Your task to perform on an android device: turn off priority inbox in the gmail app Image 0: 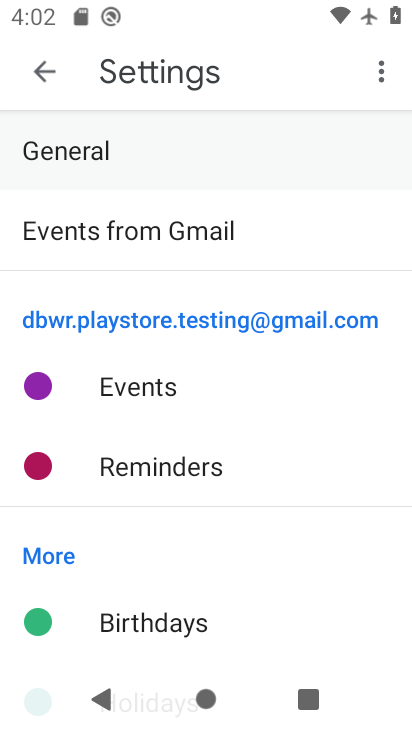
Step 0: drag from (162, 600) to (236, 141)
Your task to perform on an android device: turn off priority inbox in the gmail app Image 1: 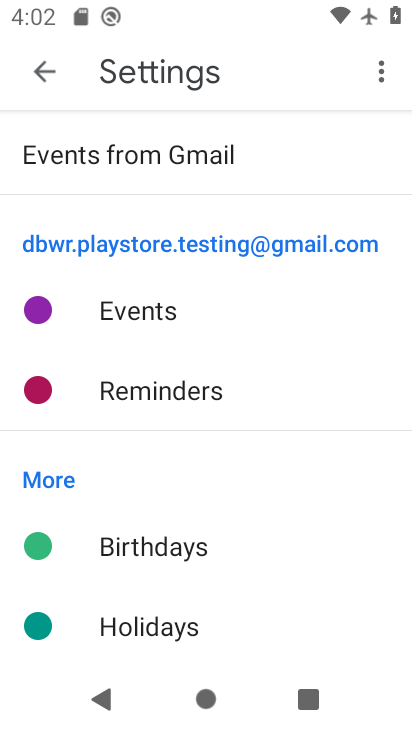
Step 1: drag from (159, 605) to (222, 203)
Your task to perform on an android device: turn off priority inbox in the gmail app Image 2: 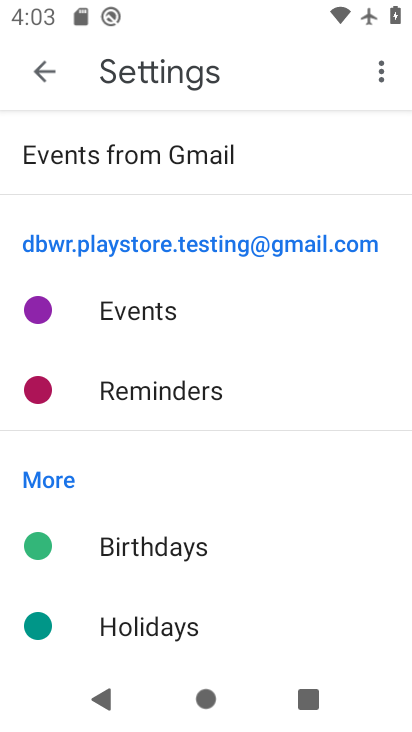
Step 2: press home button
Your task to perform on an android device: turn off priority inbox in the gmail app Image 3: 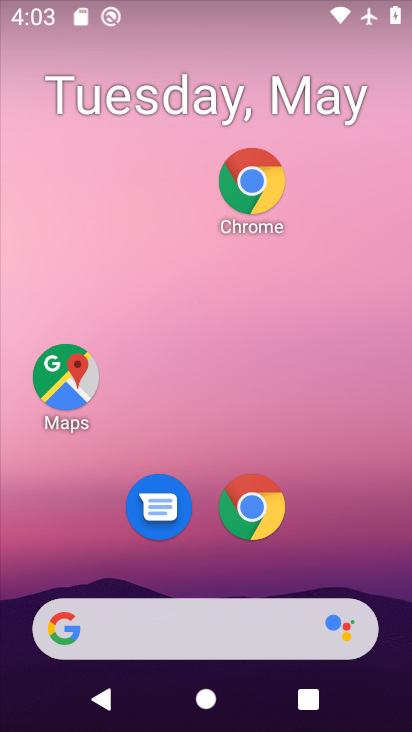
Step 3: drag from (375, 521) to (323, 121)
Your task to perform on an android device: turn off priority inbox in the gmail app Image 4: 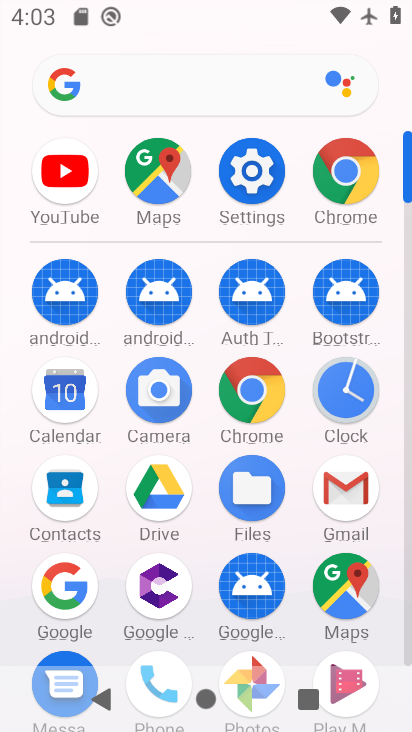
Step 4: click (356, 493)
Your task to perform on an android device: turn off priority inbox in the gmail app Image 5: 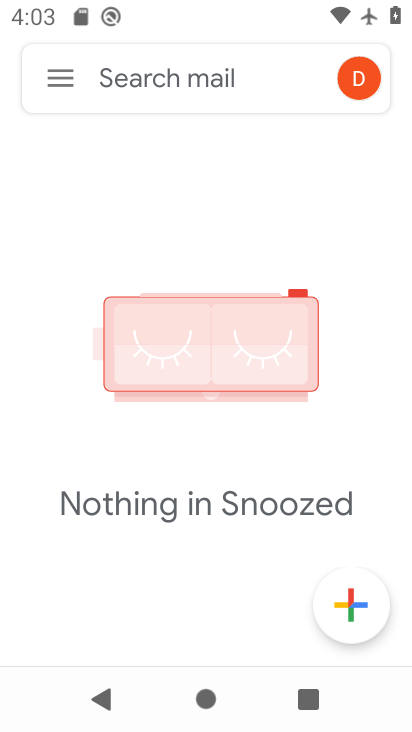
Step 5: click (61, 87)
Your task to perform on an android device: turn off priority inbox in the gmail app Image 6: 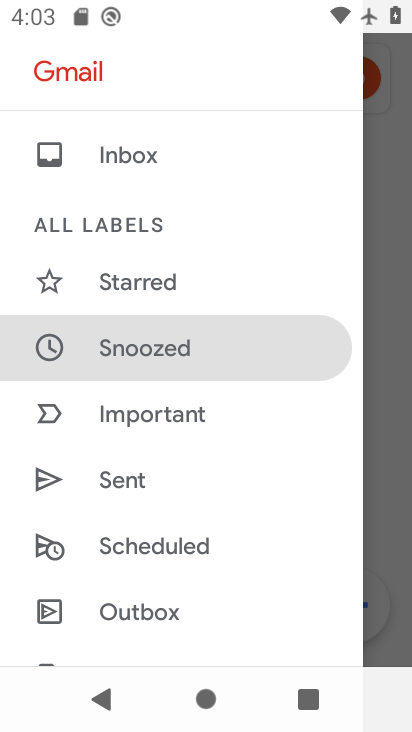
Step 6: drag from (148, 575) to (104, 288)
Your task to perform on an android device: turn off priority inbox in the gmail app Image 7: 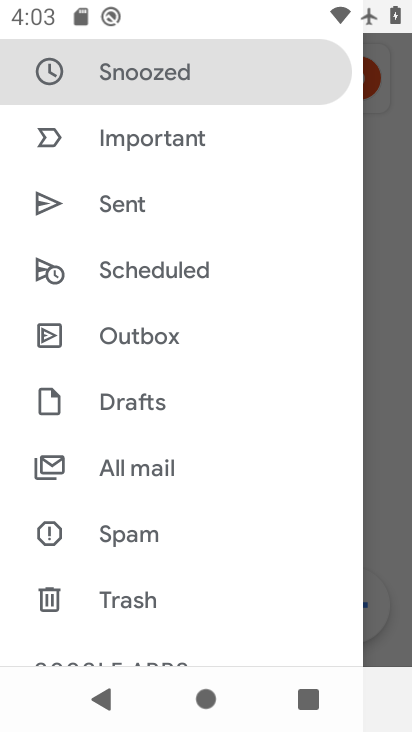
Step 7: drag from (143, 580) to (118, 250)
Your task to perform on an android device: turn off priority inbox in the gmail app Image 8: 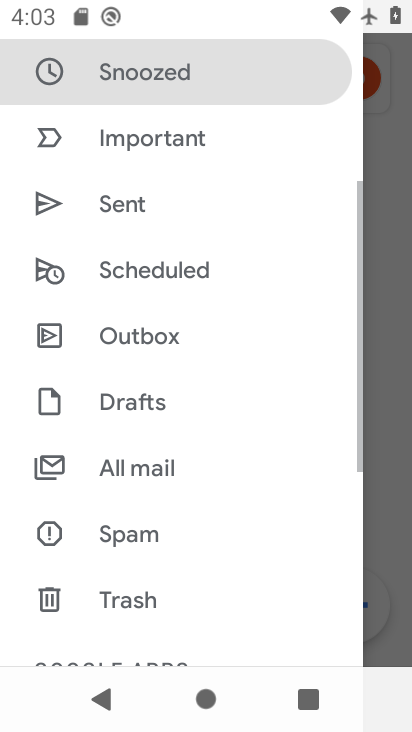
Step 8: drag from (155, 330) to (219, 594)
Your task to perform on an android device: turn off priority inbox in the gmail app Image 9: 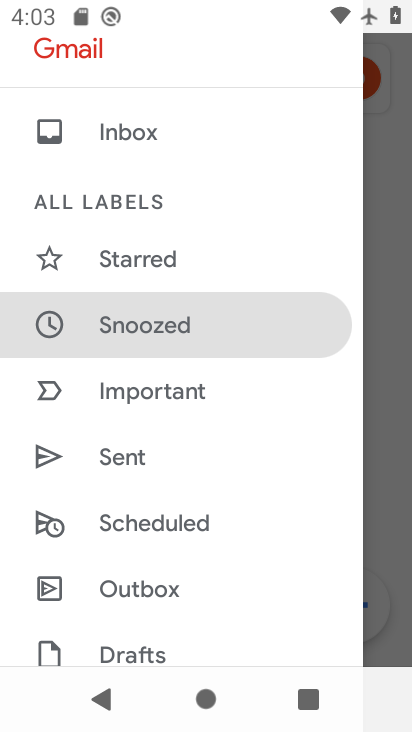
Step 9: drag from (175, 255) to (233, 613)
Your task to perform on an android device: turn off priority inbox in the gmail app Image 10: 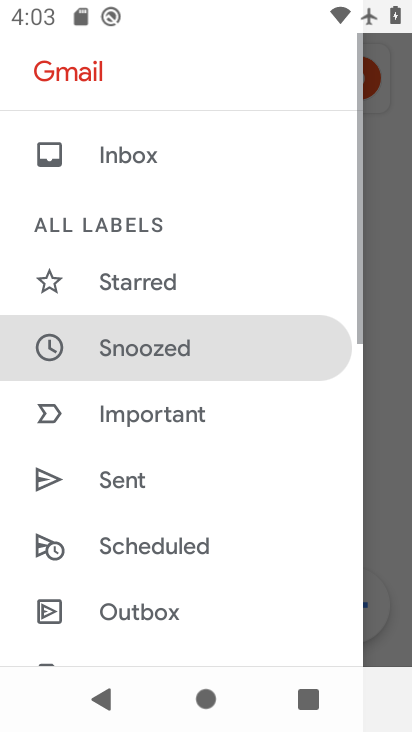
Step 10: drag from (230, 601) to (217, 283)
Your task to perform on an android device: turn off priority inbox in the gmail app Image 11: 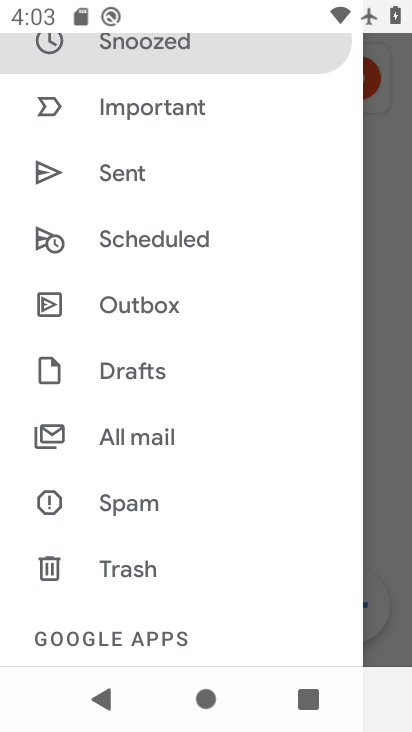
Step 11: drag from (175, 563) to (198, 163)
Your task to perform on an android device: turn off priority inbox in the gmail app Image 12: 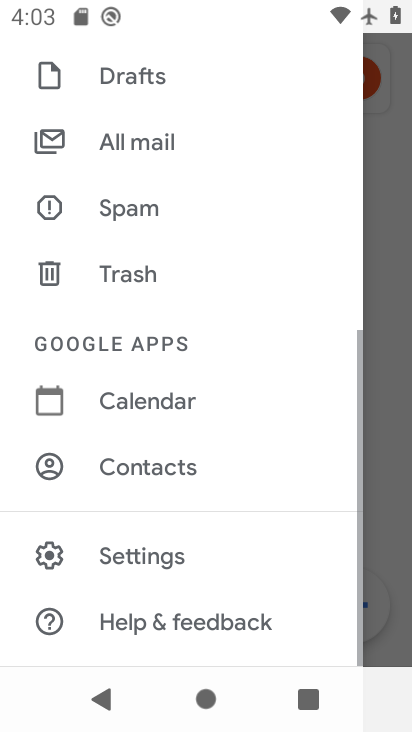
Step 12: click (156, 547)
Your task to perform on an android device: turn off priority inbox in the gmail app Image 13: 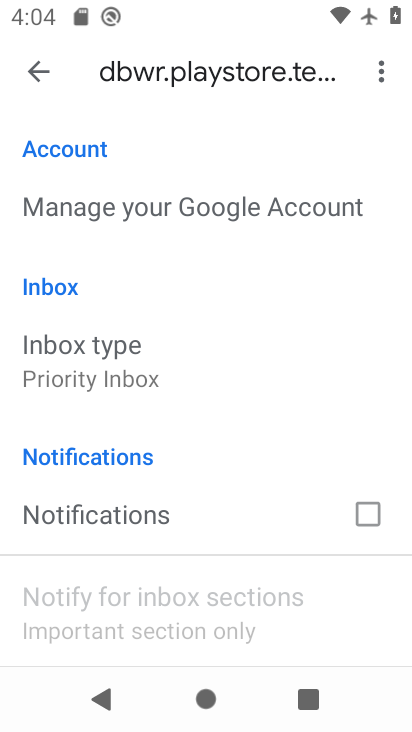
Step 13: click (54, 374)
Your task to perform on an android device: turn off priority inbox in the gmail app Image 14: 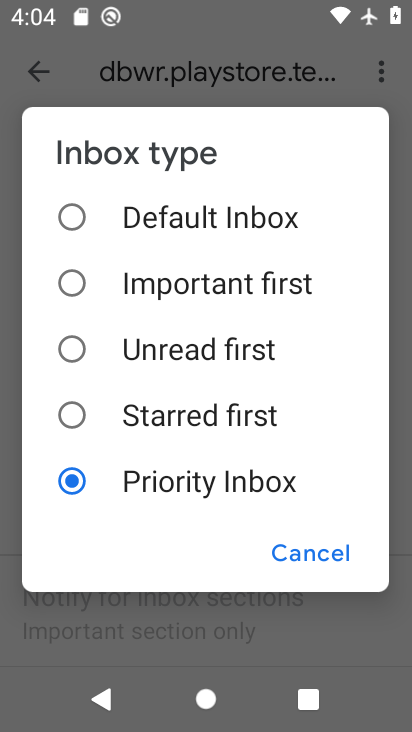
Step 14: click (56, 222)
Your task to perform on an android device: turn off priority inbox in the gmail app Image 15: 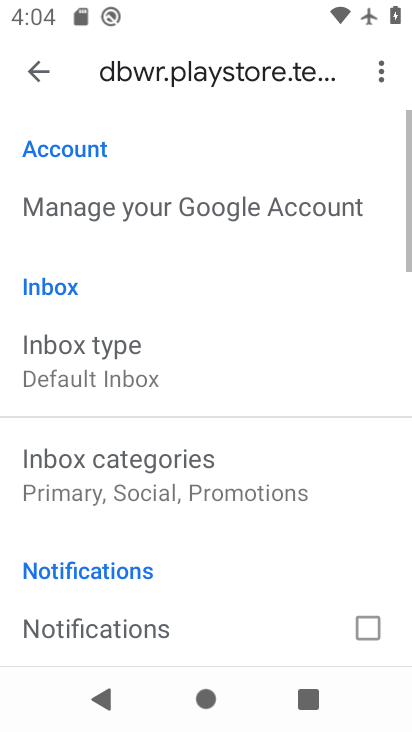
Step 15: task complete